Your task to perform on an android device: Go to eBay Image 0: 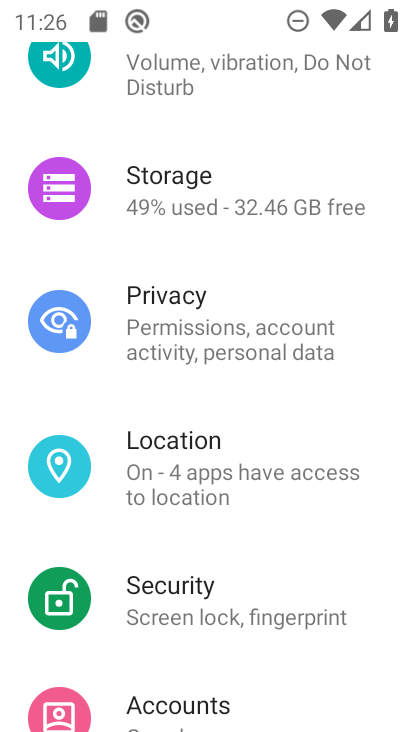
Step 0: press home button
Your task to perform on an android device: Go to eBay Image 1: 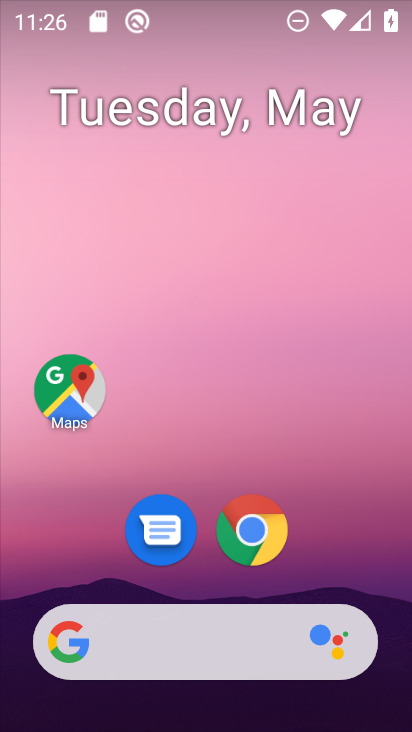
Step 1: click (261, 534)
Your task to perform on an android device: Go to eBay Image 2: 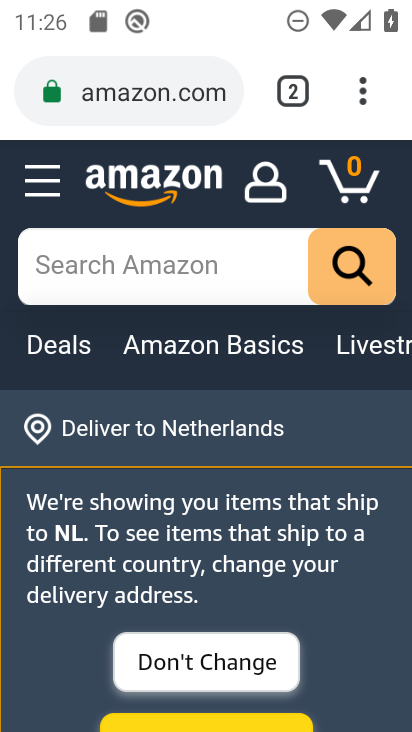
Step 2: click (188, 100)
Your task to perform on an android device: Go to eBay Image 3: 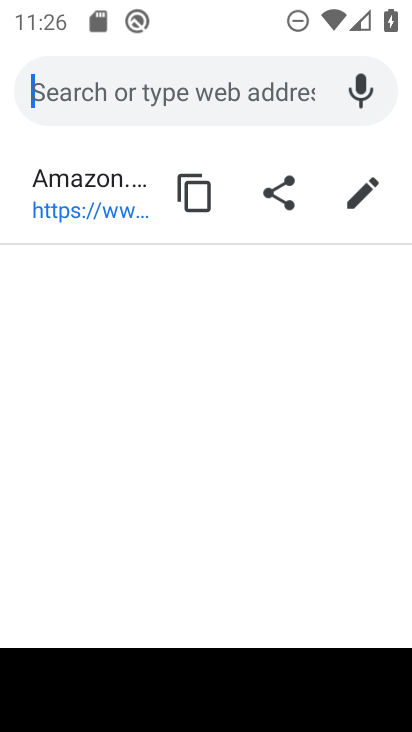
Step 3: type "ebay"
Your task to perform on an android device: Go to eBay Image 4: 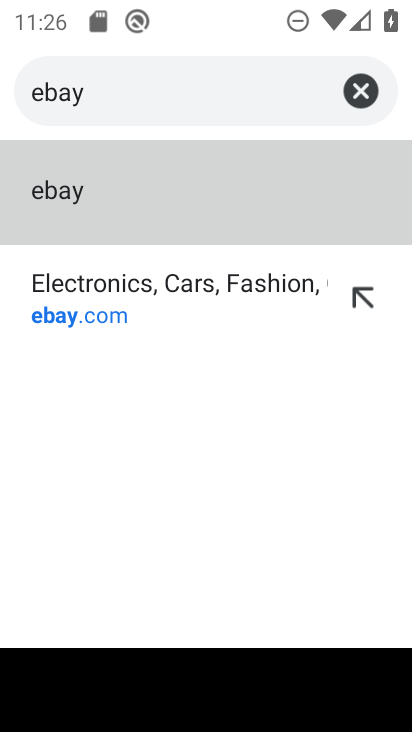
Step 4: click (105, 316)
Your task to perform on an android device: Go to eBay Image 5: 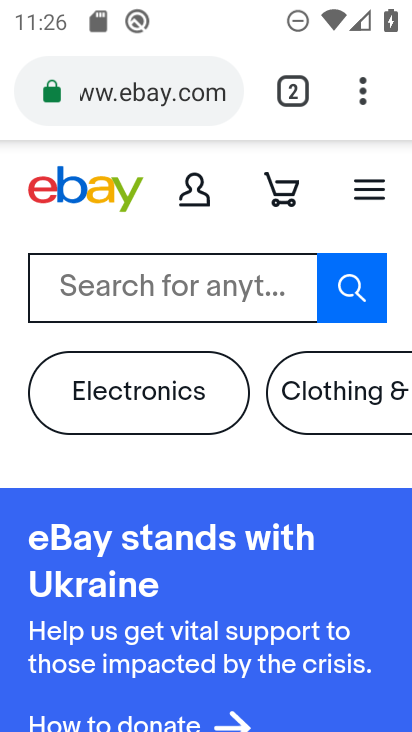
Step 5: task complete